Your task to perform on an android device: Open my contact list Image 0: 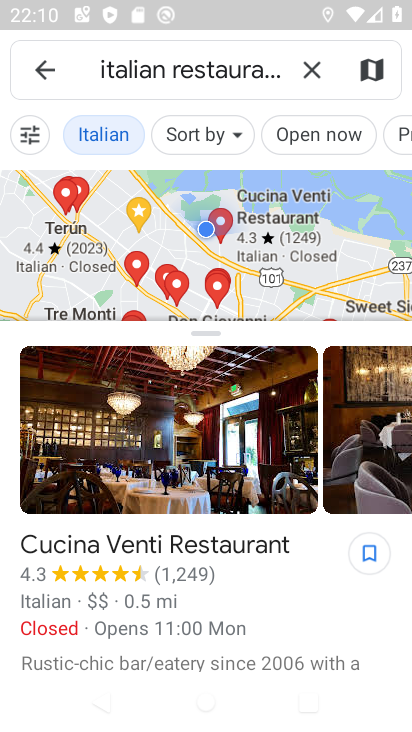
Step 0: press home button
Your task to perform on an android device: Open my contact list Image 1: 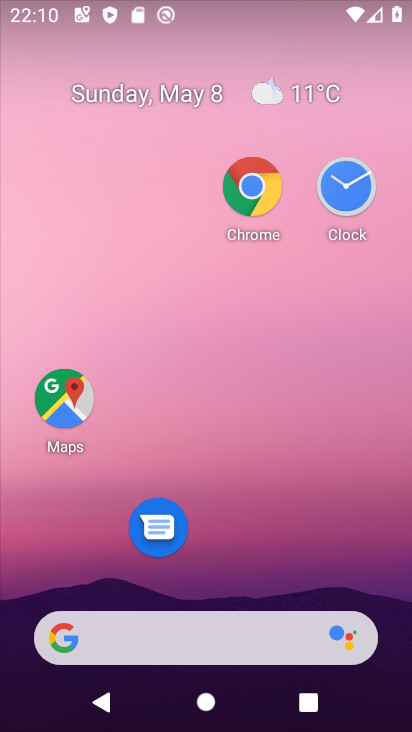
Step 1: drag from (216, 555) to (254, 90)
Your task to perform on an android device: Open my contact list Image 2: 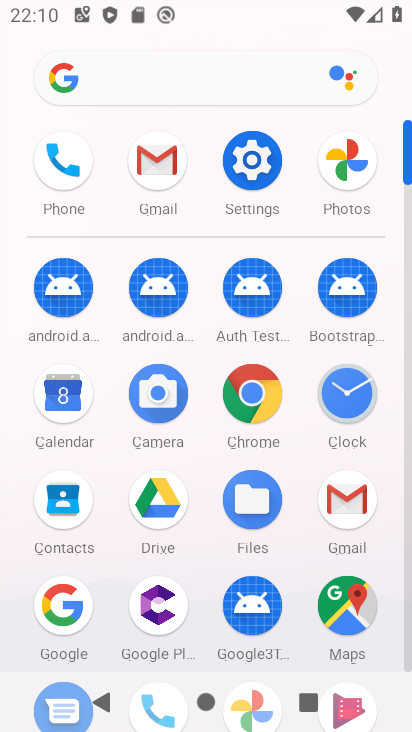
Step 2: click (68, 516)
Your task to perform on an android device: Open my contact list Image 3: 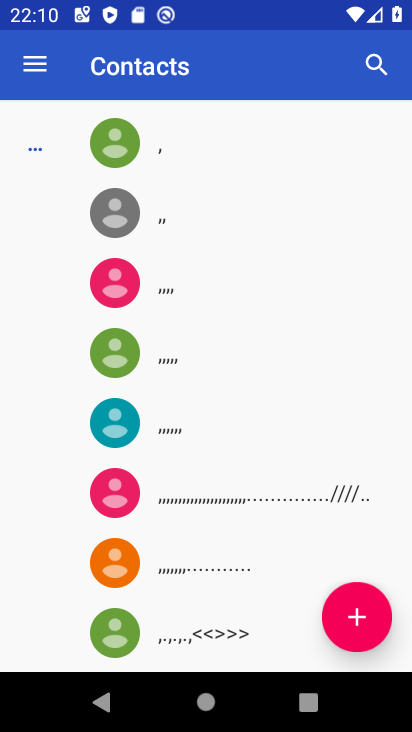
Step 3: task complete